Your task to perform on an android device: Open wifi settings Image 0: 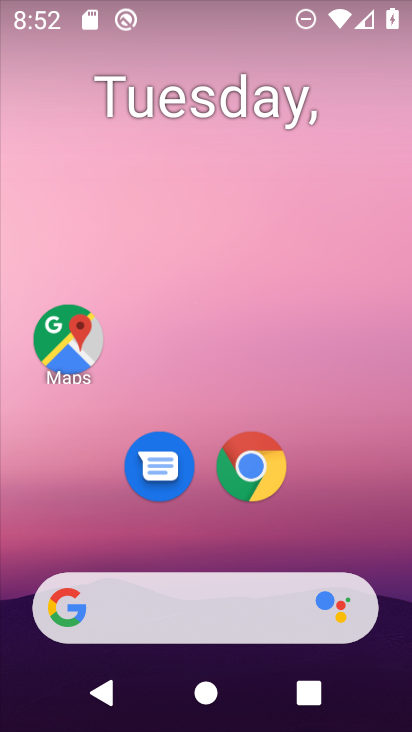
Step 0: drag from (190, 526) to (227, 0)
Your task to perform on an android device: Open wifi settings Image 1: 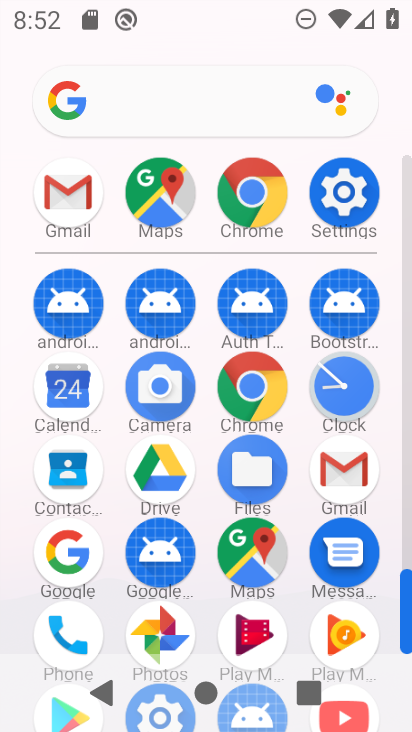
Step 1: click (358, 206)
Your task to perform on an android device: Open wifi settings Image 2: 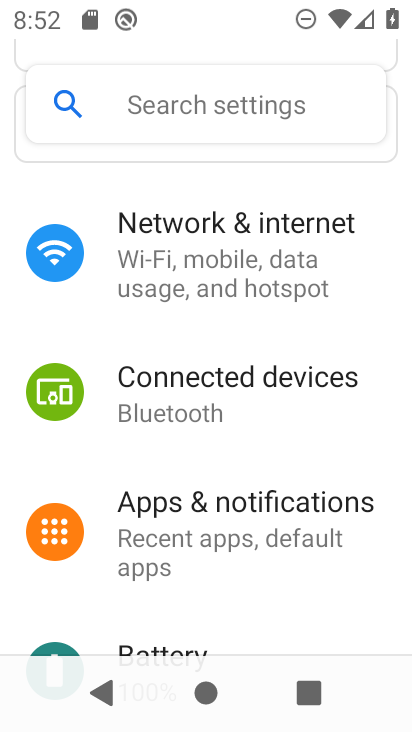
Step 2: click (216, 267)
Your task to perform on an android device: Open wifi settings Image 3: 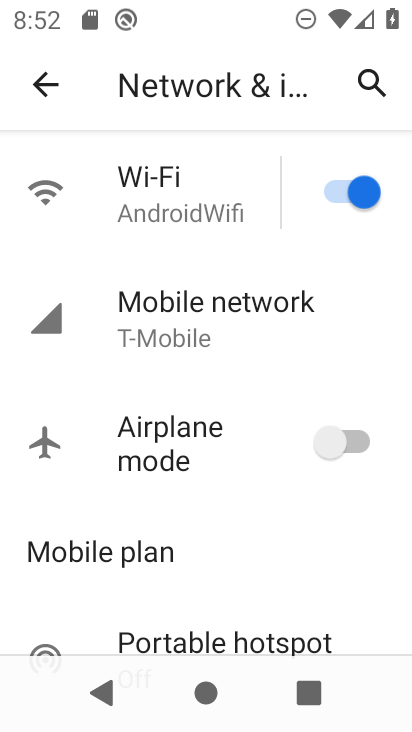
Step 3: click (170, 213)
Your task to perform on an android device: Open wifi settings Image 4: 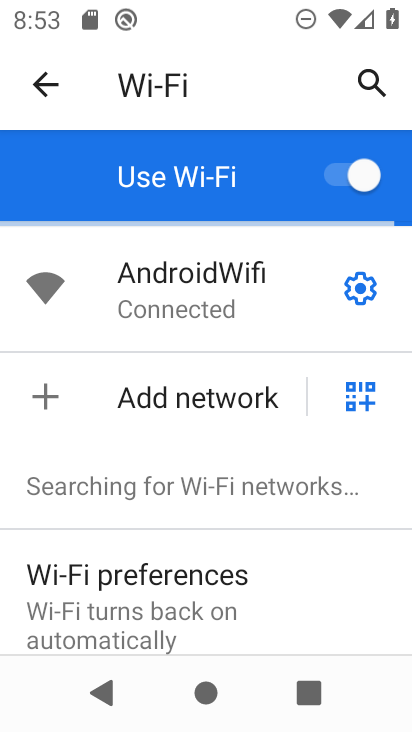
Step 4: task complete